Your task to perform on an android device: What's the weather today? Image 0: 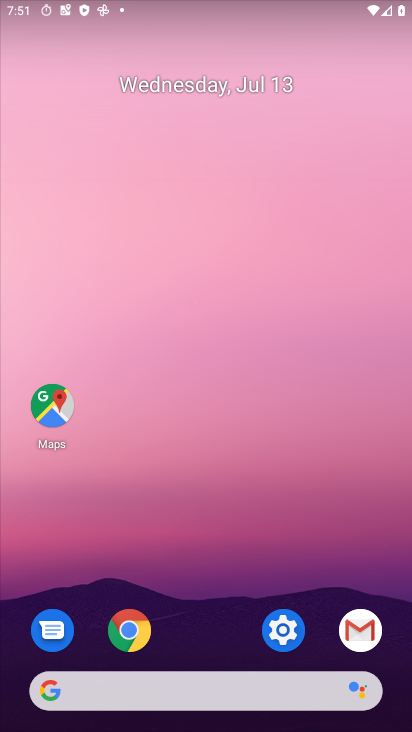
Step 0: press home button
Your task to perform on an android device: What's the weather today? Image 1: 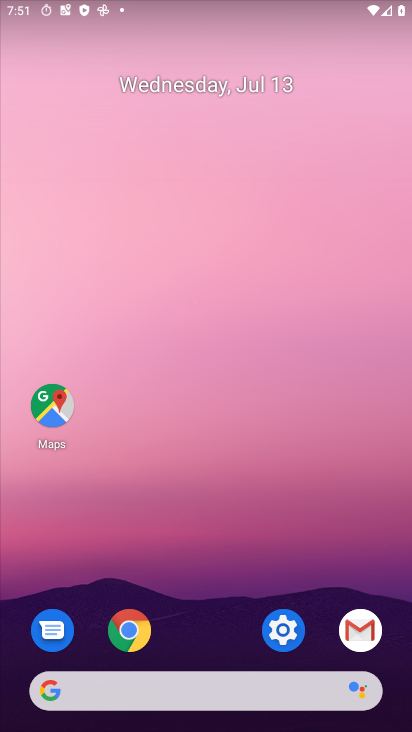
Step 1: click (188, 678)
Your task to perform on an android device: What's the weather today? Image 2: 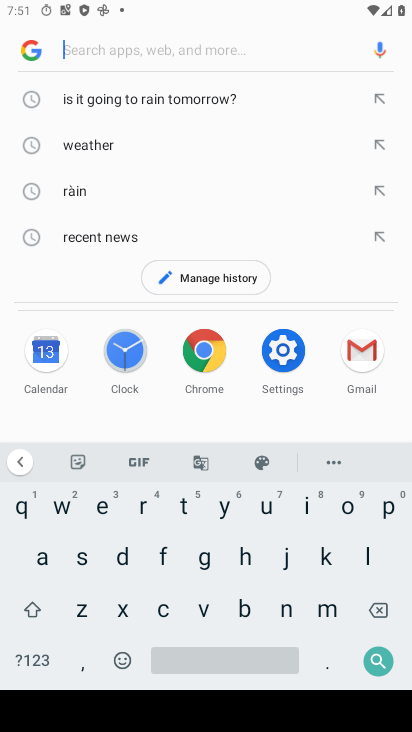
Step 2: click (112, 134)
Your task to perform on an android device: What's the weather today? Image 3: 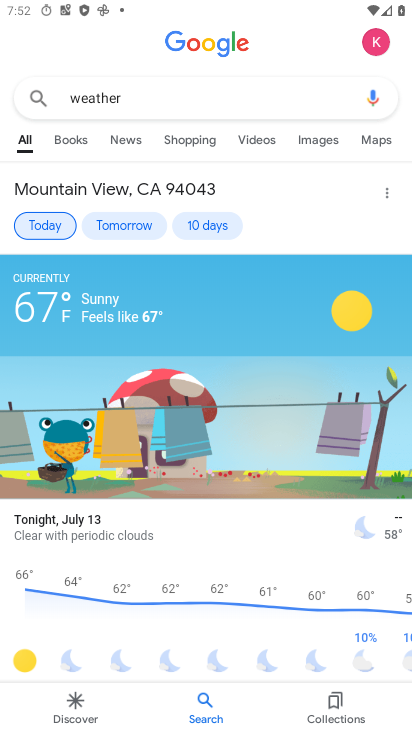
Step 3: task complete